Your task to perform on an android device: see sites visited before in the chrome app Image 0: 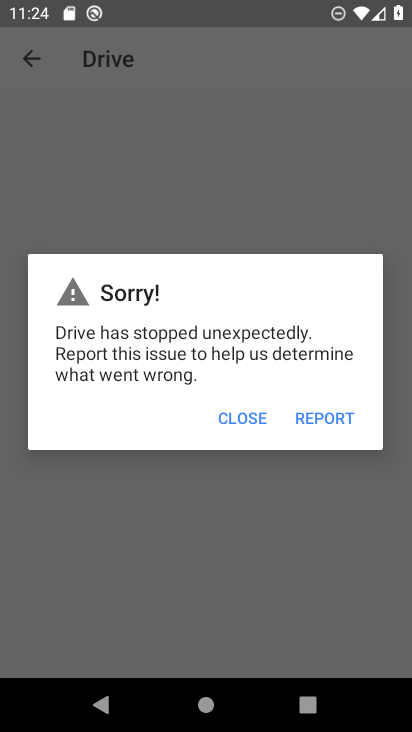
Step 0: press home button
Your task to perform on an android device: see sites visited before in the chrome app Image 1: 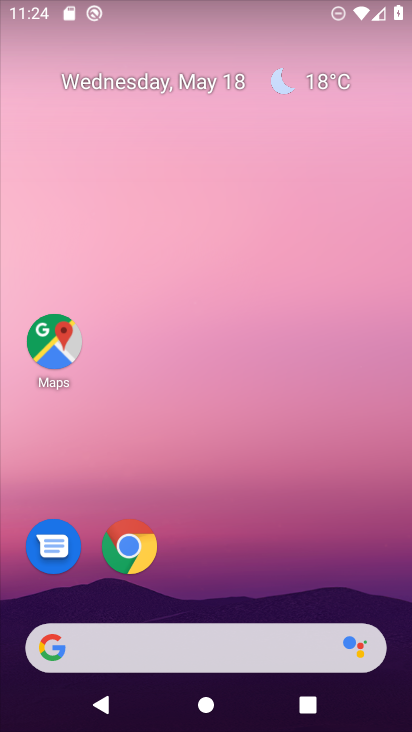
Step 1: click (128, 549)
Your task to perform on an android device: see sites visited before in the chrome app Image 2: 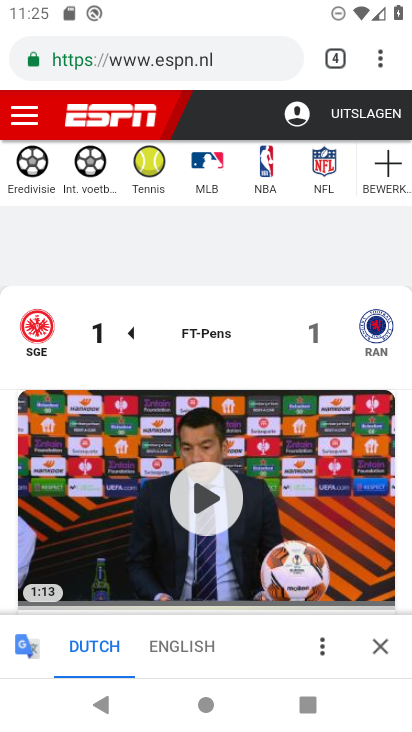
Step 2: click (381, 62)
Your task to perform on an android device: see sites visited before in the chrome app Image 3: 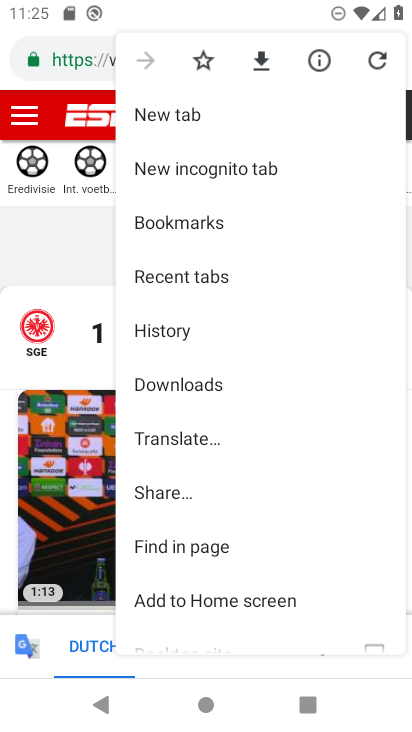
Step 3: click (170, 330)
Your task to perform on an android device: see sites visited before in the chrome app Image 4: 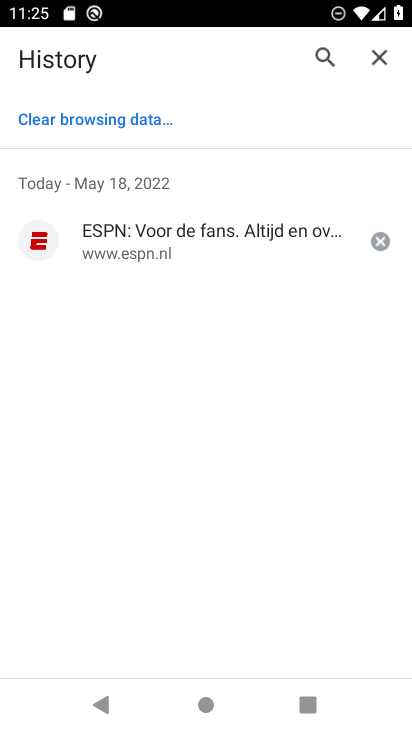
Step 4: task complete